Your task to perform on an android device: visit the assistant section in the google photos Image 0: 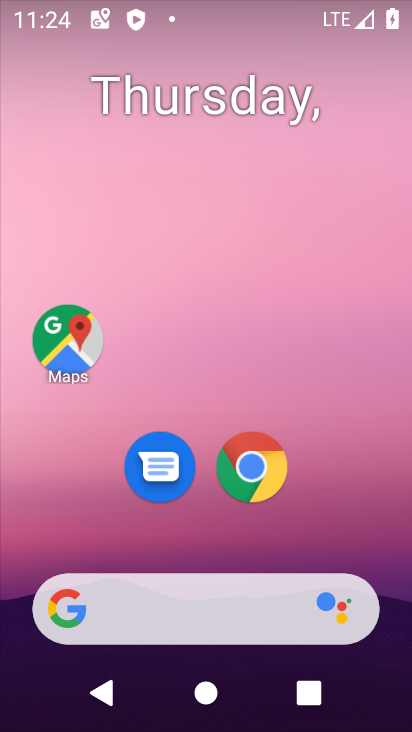
Step 0: click (73, 320)
Your task to perform on an android device: visit the assistant section in the google photos Image 1: 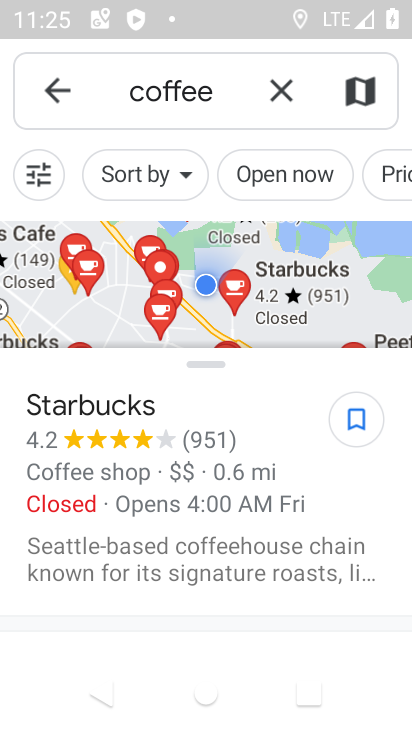
Step 1: press back button
Your task to perform on an android device: visit the assistant section in the google photos Image 2: 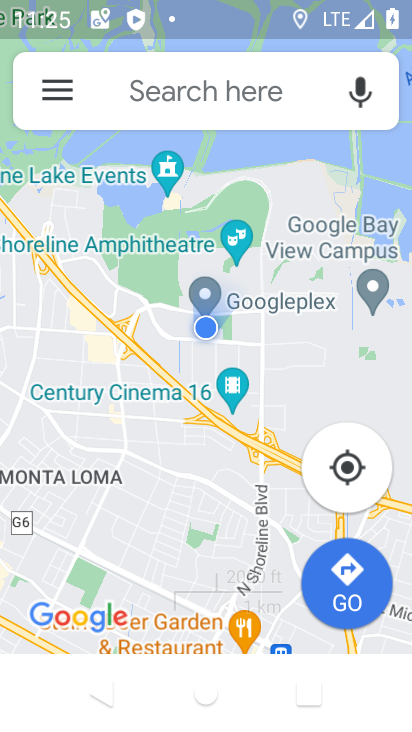
Step 2: press back button
Your task to perform on an android device: visit the assistant section in the google photos Image 3: 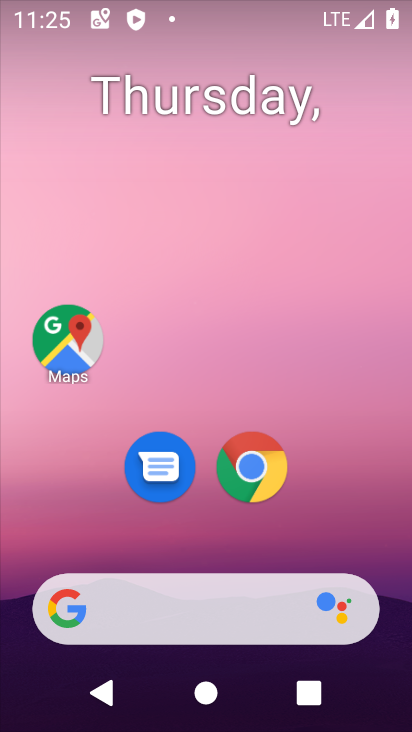
Step 3: drag from (195, 519) to (218, 25)
Your task to perform on an android device: visit the assistant section in the google photos Image 4: 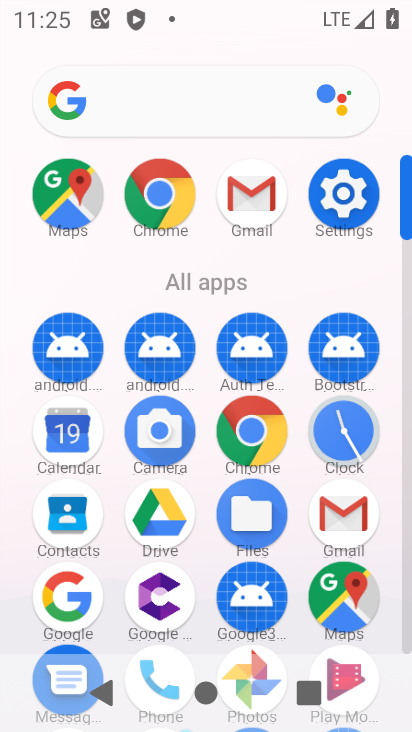
Step 4: drag from (202, 586) to (225, 160)
Your task to perform on an android device: visit the assistant section in the google photos Image 5: 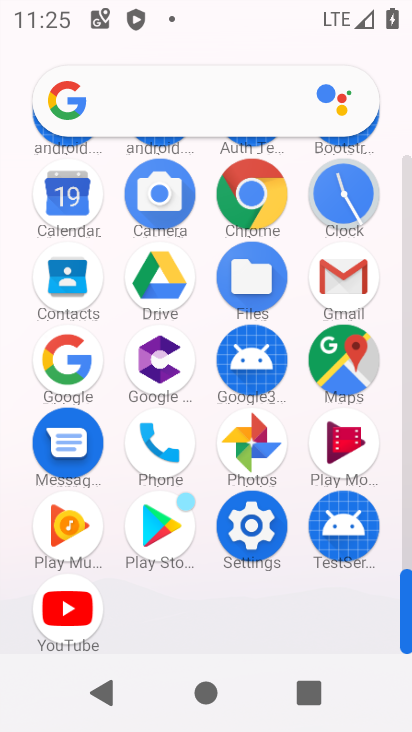
Step 5: click (256, 449)
Your task to perform on an android device: visit the assistant section in the google photos Image 6: 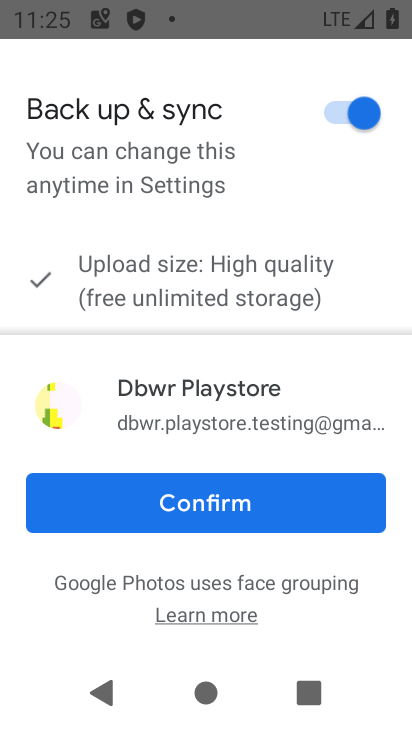
Step 6: click (186, 517)
Your task to perform on an android device: visit the assistant section in the google photos Image 7: 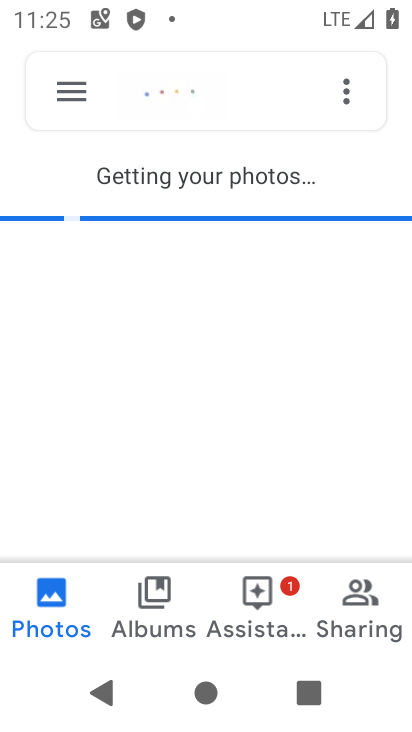
Step 7: click (254, 599)
Your task to perform on an android device: visit the assistant section in the google photos Image 8: 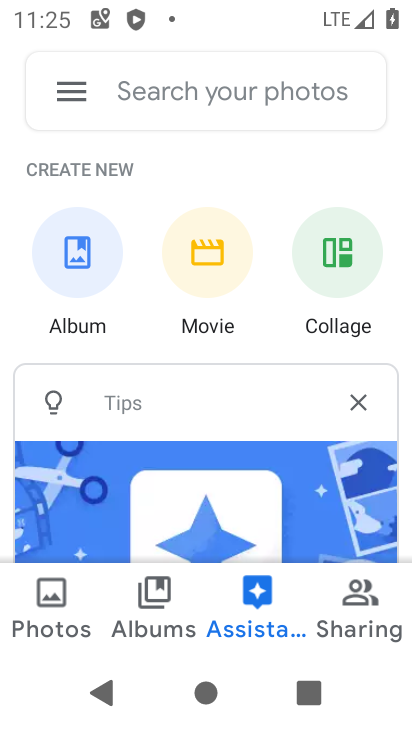
Step 8: task complete